Your task to perform on an android device: change timer sound Image 0: 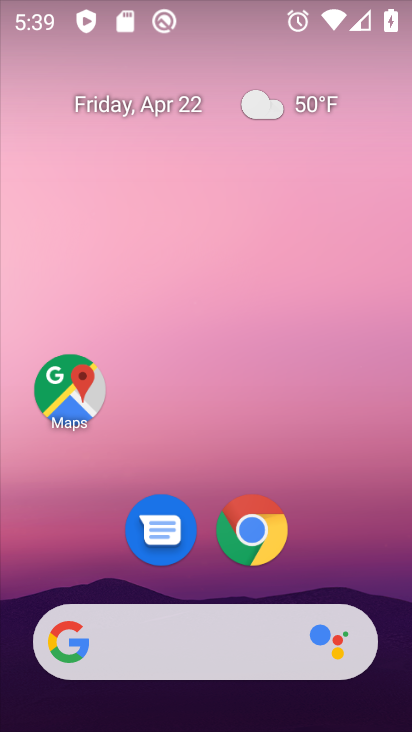
Step 0: drag from (334, 397) to (328, 140)
Your task to perform on an android device: change timer sound Image 1: 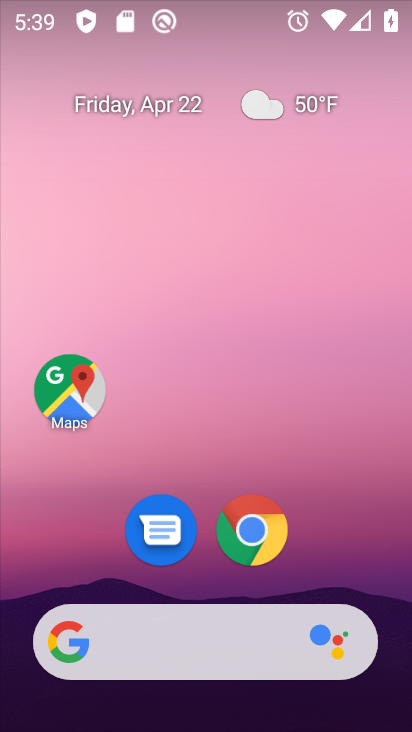
Step 1: drag from (312, 531) to (344, 91)
Your task to perform on an android device: change timer sound Image 2: 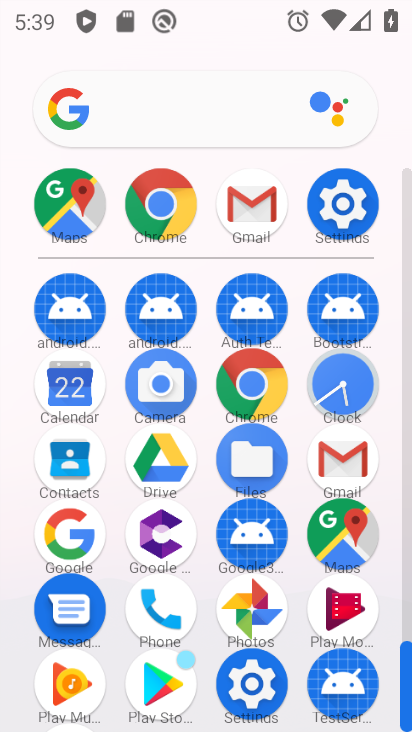
Step 2: click (265, 675)
Your task to perform on an android device: change timer sound Image 3: 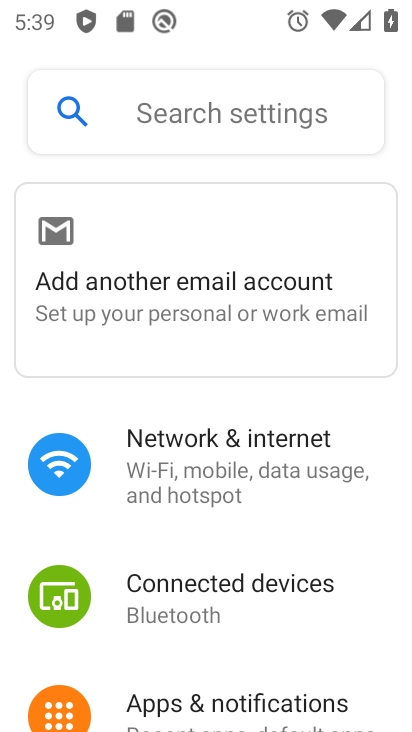
Step 3: drag from (347, 655) to (378, 300)
Your task to perform on an android device: change timer sound Image 4: 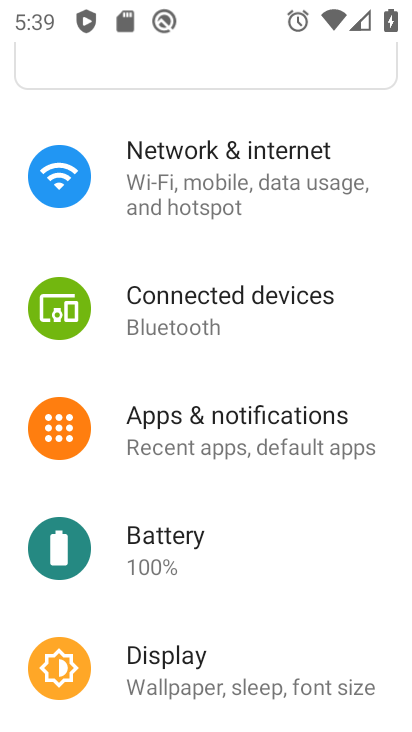
Step 4: drag from (355, 630) to (373, 293)
Your task to perform on an android device: change timer sound Image 5: 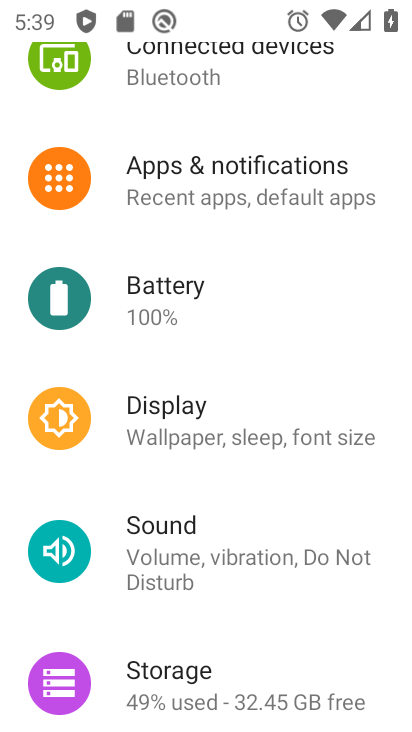
Step 5: click (195, 545)
Your task to perform on an android device: change timer sound Image 6: 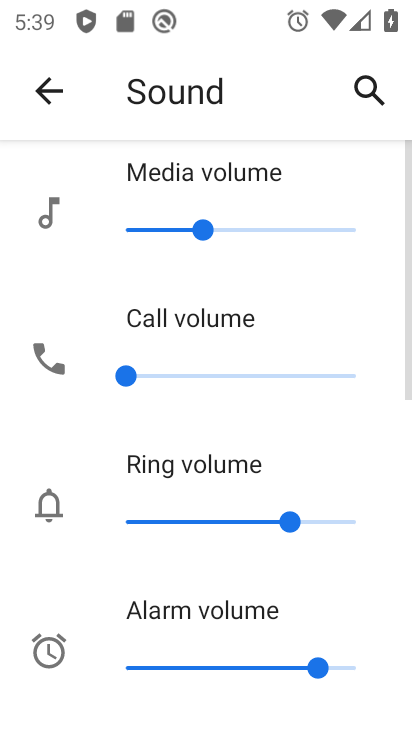
Step 6: task complete